Your task to perform on an android device: Open Youtube and go to the subscriptions tab Image 0: 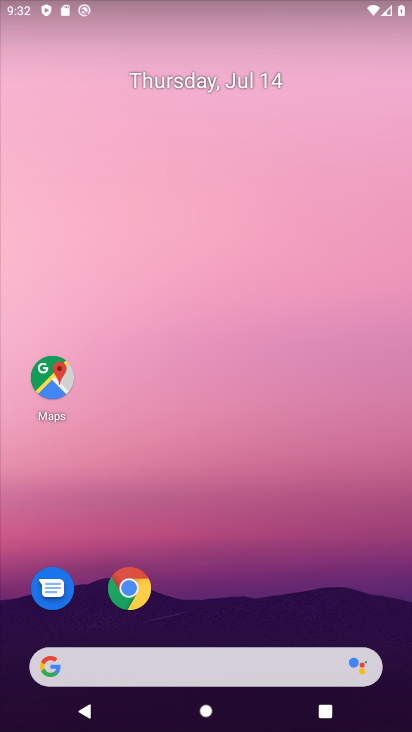
Step 0: drag from (183, 620) to (203, 228)
Your task to perform on an android device: Open Youtube and go to the subscriptions tab Image 1: 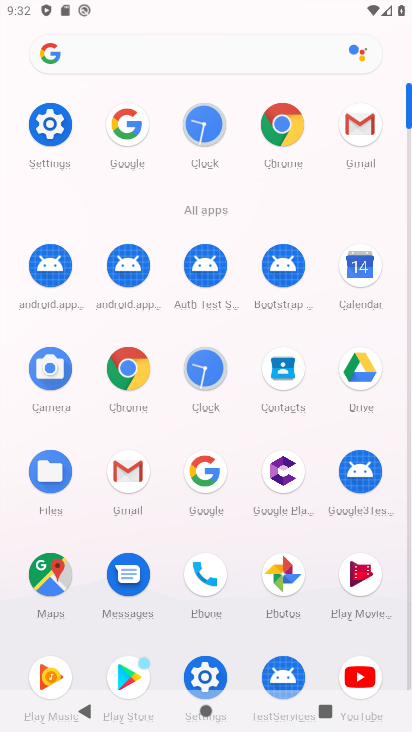
Step 1: click (367, 670)
Your task to perform on an android device: Open Youtube and go to the subscriptions tab Image 2: 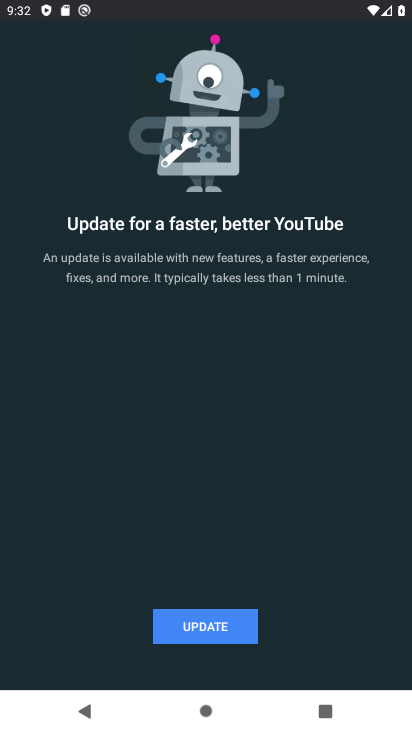
Step 2: click (187, 625)
Your task to perform on an android device: Open Youtube and go to the subscriptions tab Image 3: 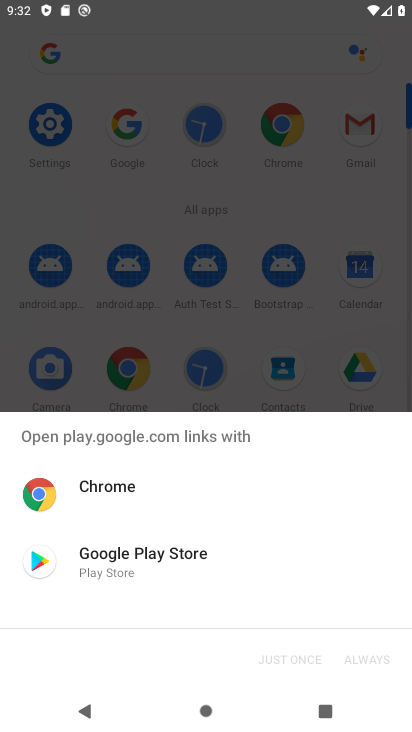
Step 3: click (139, 557)
Your task to perform on an android device: Open Youtube and go to the subscriptions tab Image 4: 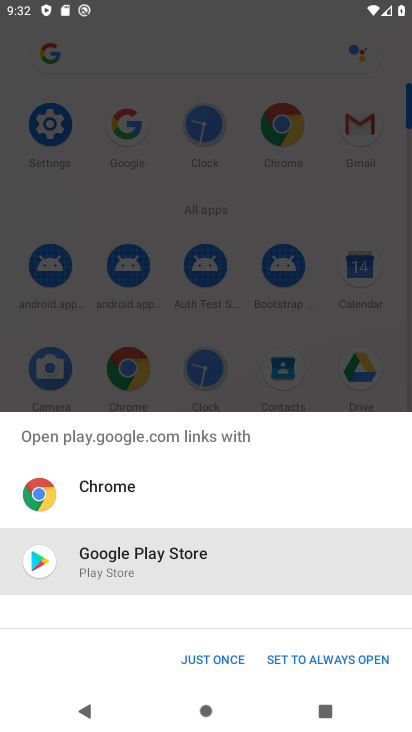
Step 4: click (206, 657)
Your task to perform on an android device: Open Youtube and go to the subscriptions tab Image 5: 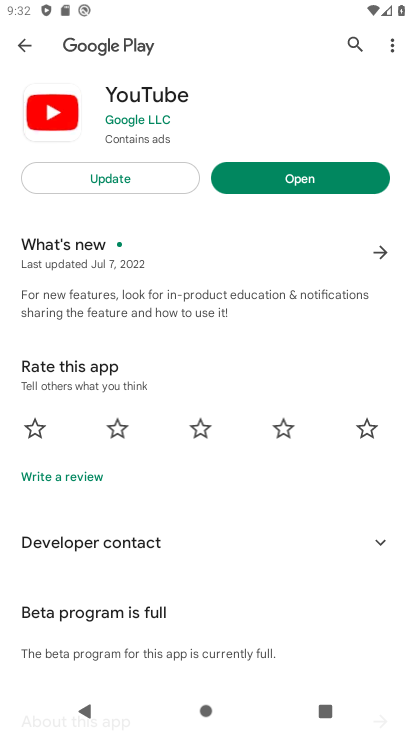
Step 5: click (112, 185)
Your task to perform on an android device: Open Youtube and go to the subscriptions tab Image 6: 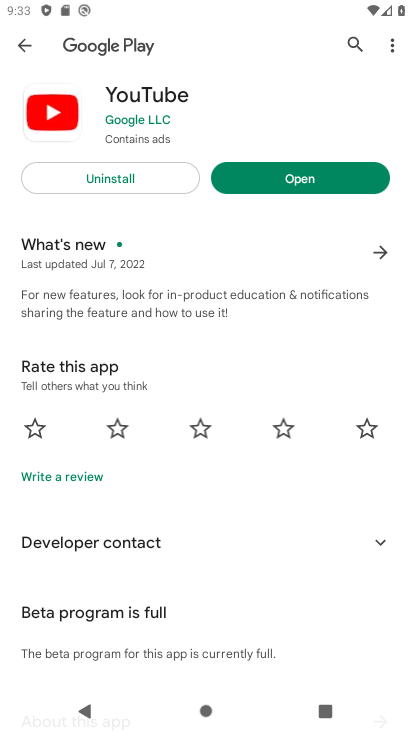
Step 6: click (288, 184)
Your task to perform on an android device: Open Youtube and go to the subscriptions tab Image 7: 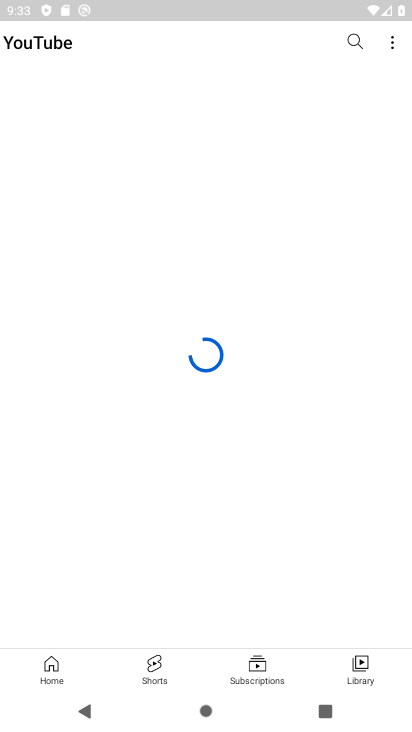
Step 7: click (244, 666)
Your task to perform on an android device: Open Youtube and go to the subscriptions tab Image 8: 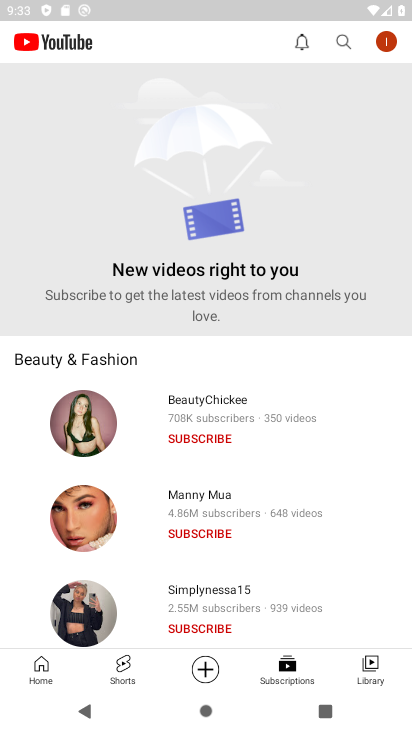
Step 8: task complete